Your task to perform on an android device: manage bookmarks in the chrome app Image 0: 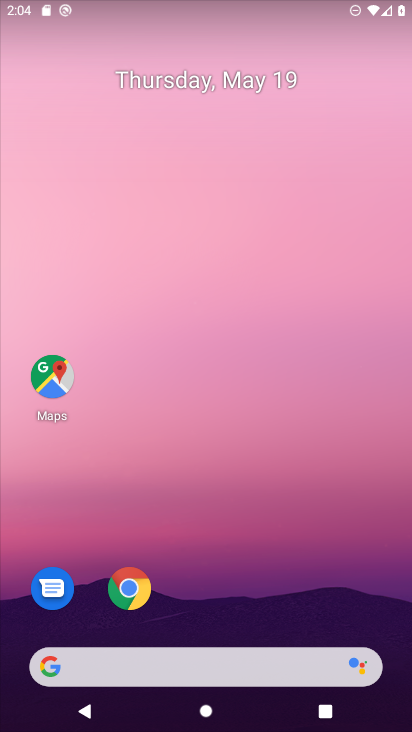
Step 0: click (125, 602)
Your task to perform on an android device: manage bookmarks in the chrome app Image 1: 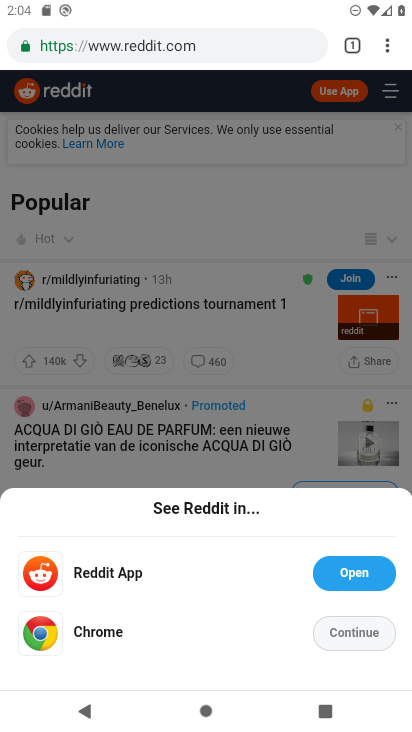
Step 1: click (394, 46)
Your task to perform on an android device: manage bookmarks in the chrome app Image 2: 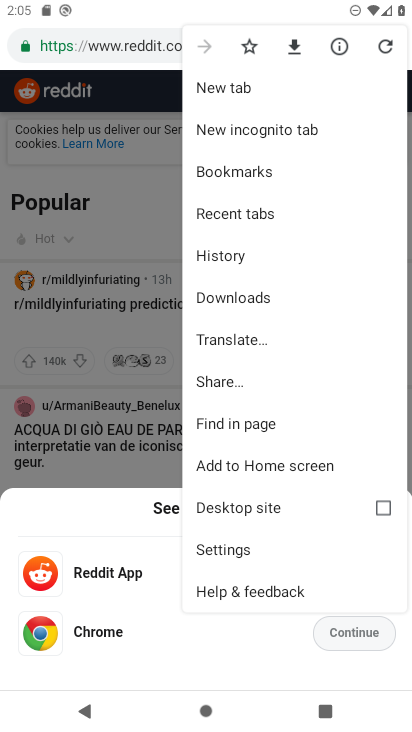
Step 2: click (227, 176)
Your task to perform on an android device: manage bookmarks in the chrome app Image 3: 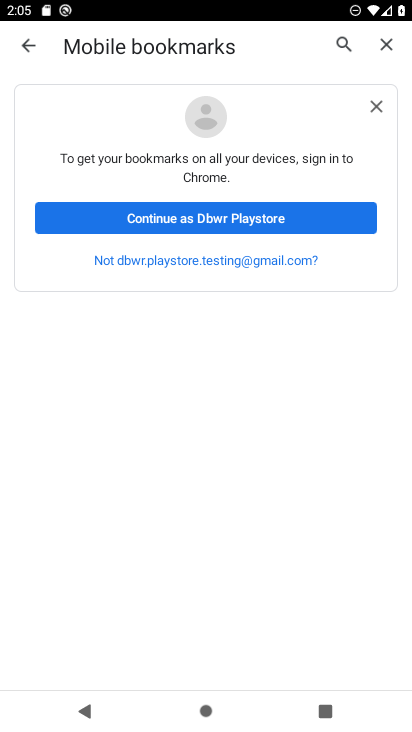
Step 3: click (208, 226)
Your task to perform on an android device: manage bookmarks in the chrome app Image 4: 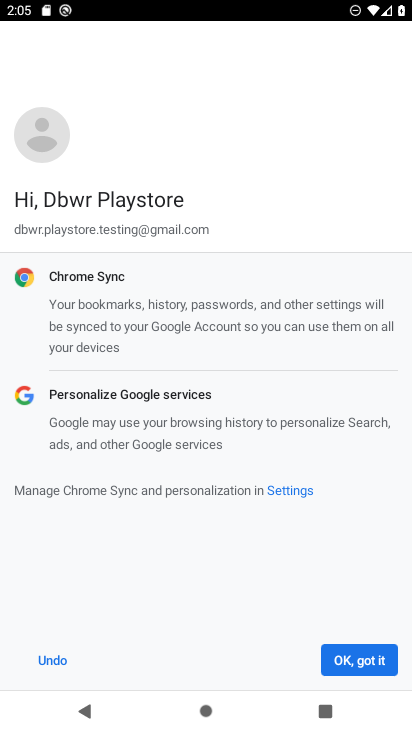
Step 4: click (351, 664)
Your task to perform on an android device: manage bookmarks in the chrome app Image 5: 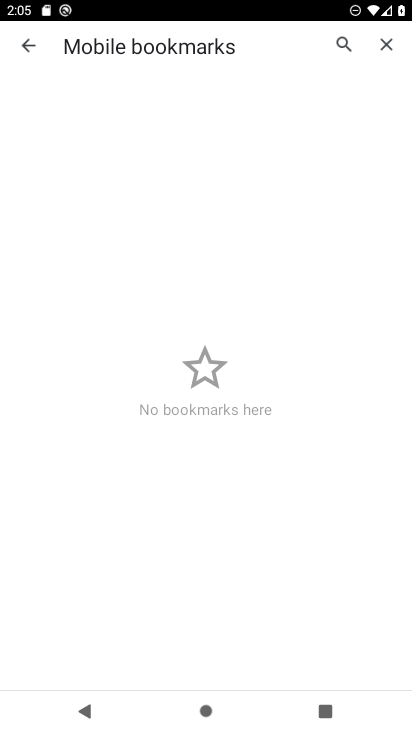
Step 5: task complete